Your task to perform on an android device: allow notifications from all sites in the chrome app Image 0: 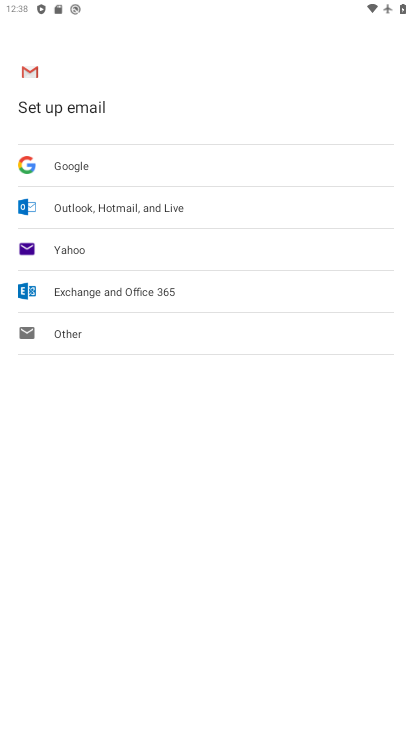
Step 0: press home button
Your task to perform on an android device: allow notifications from all sites in the chrome app Image 1: 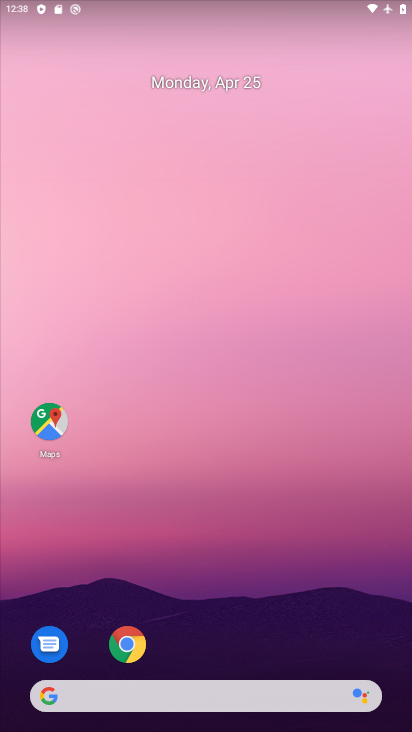
Step 1: click (134, 654)
Your task to perform on an android device: allow notifications from all sites in the chrome app Image 2: 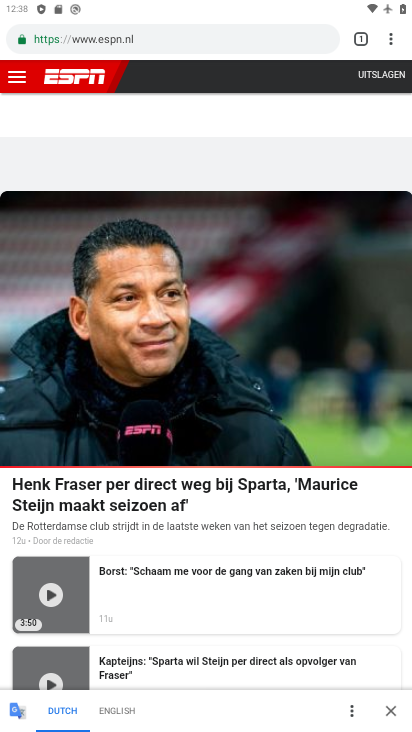
Step 2: click (391, 48)
Your task to perform on an android device: allow notifications from all sites in the chrome app Image 3: 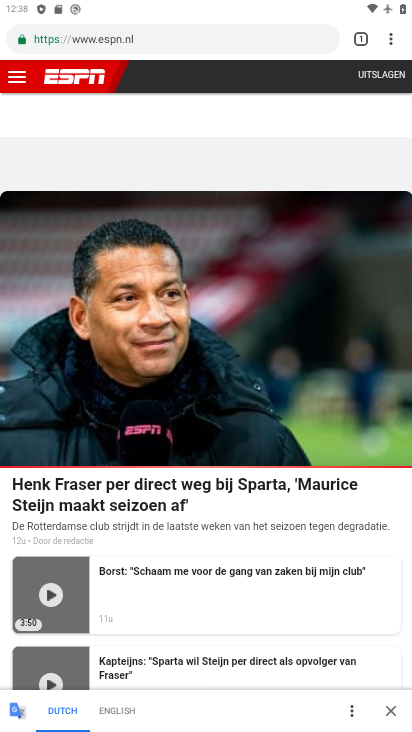
Step 3: click (385, 57)
Your task to perform on an android device: allow notifications from all sites in the chrome app Image 4: 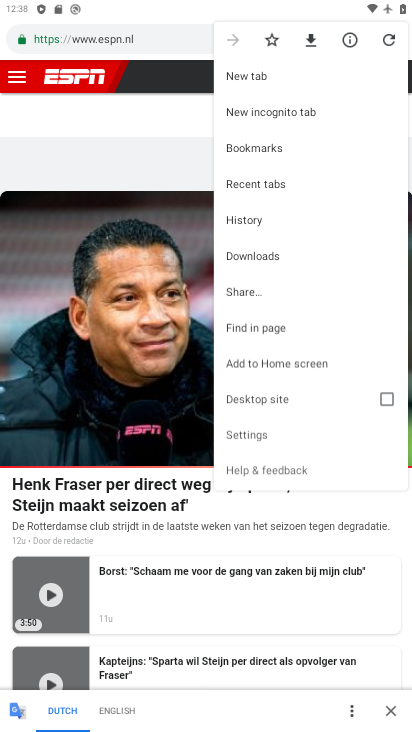
Step 4: click (388, 43)
Your task to perform on an android device: allow notifications from all sites in the chrome app Image 5: 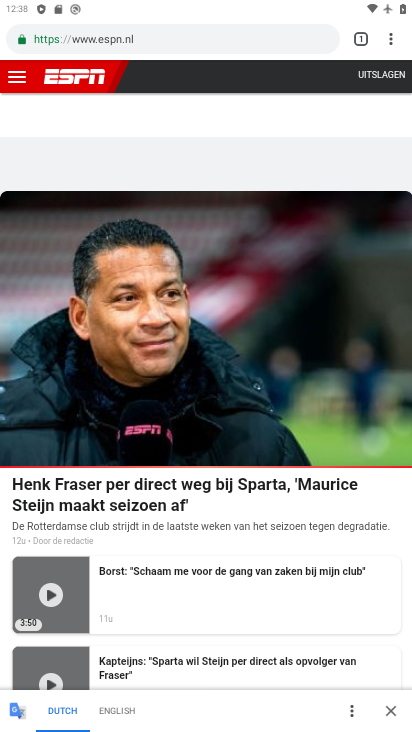
Step 5: click (385, 29)
Your task to perform on an android device: allow notifications from all sites in the chrome app Image 6: 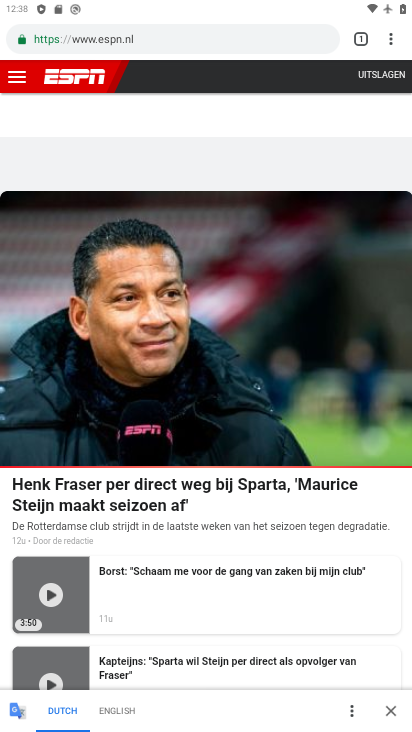
Step 6: click (395, 46)
Your task to perform on an android device: allow notifications from all sites in the chrome app Image 7: 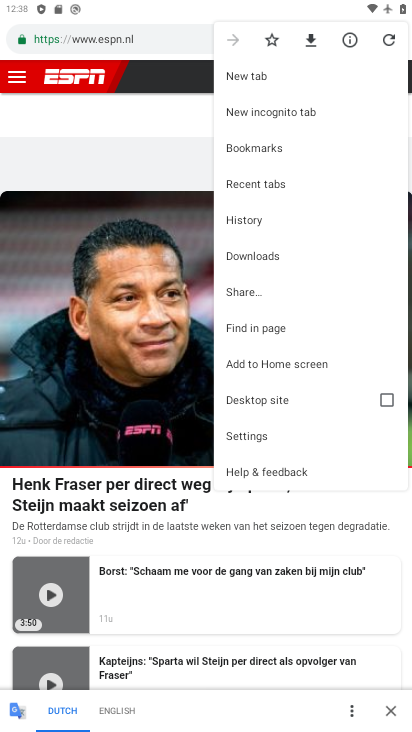
Step 7: click (281, 430)
Your task to perform on an android device: allow notifications from all sites in the chrome app Image 8: 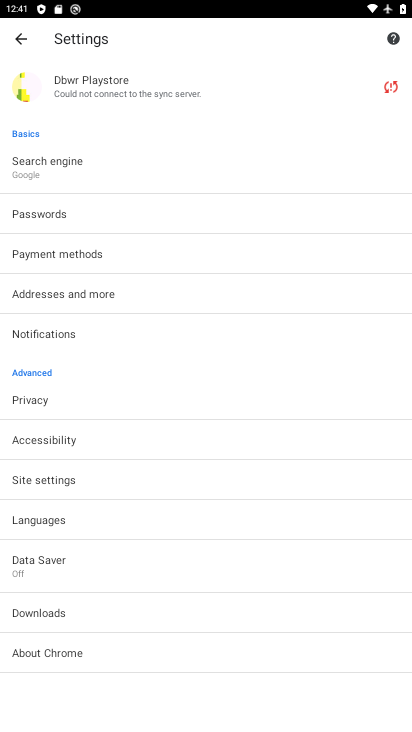
Step 8: task complete